Your task to perform on an android device: open a bookmark in the chrome app Image 0: 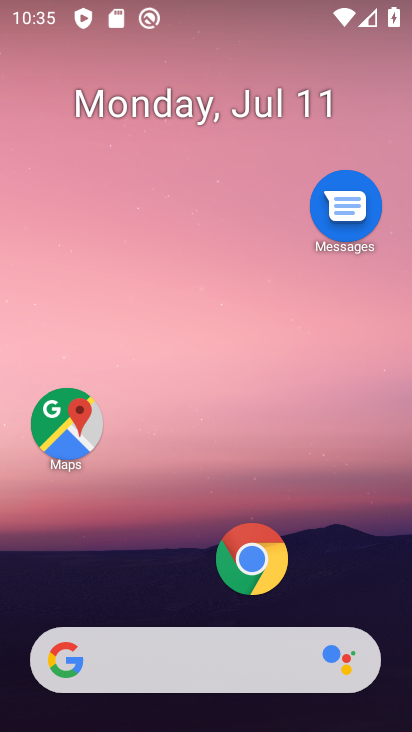
Step 0: drag from (368, 577) to (351, 131)
Your task to perform on an android device: open a bookmark in the chrome app Image 1: 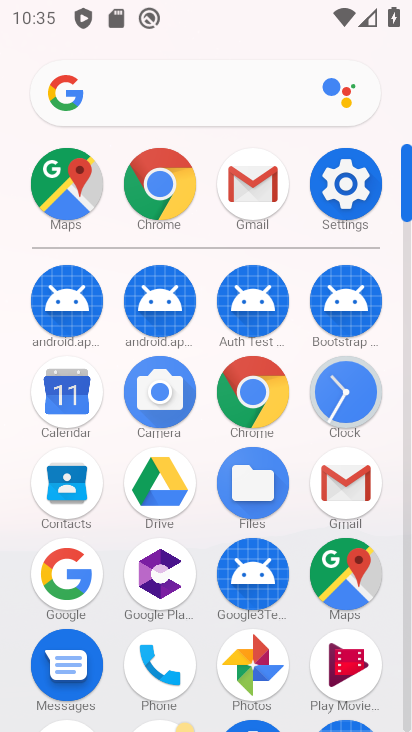
Step 1: click (269, 398)
Your task to perform on an android device: open a bookmark in the chrome app Image 2: 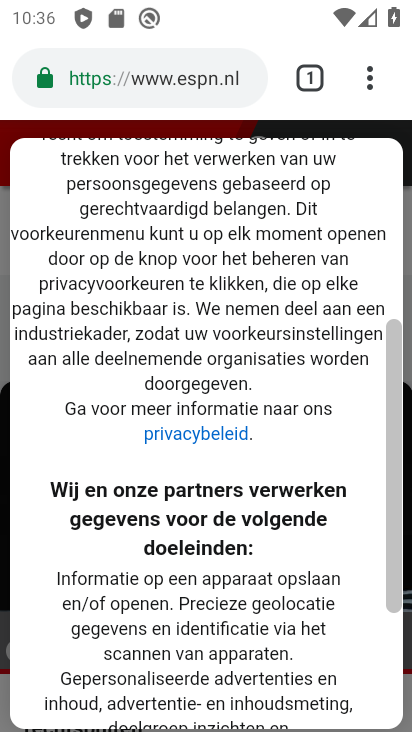
Step 2: click (371, 80)
Your task to perform on an android device: open a bookmark in the chrome app Image 3: 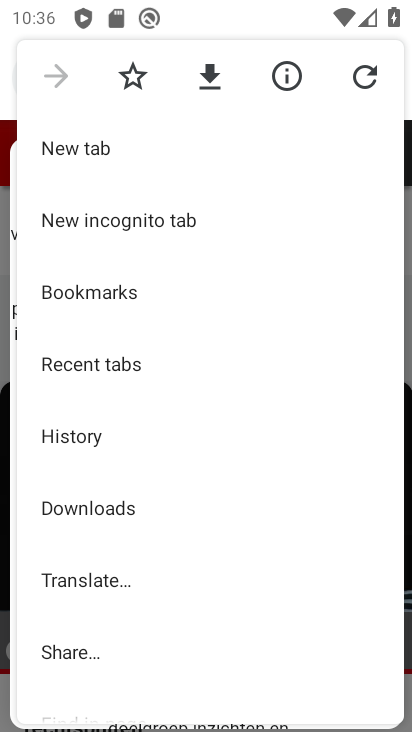
Step 3: click (132, 296)
Your task to perform on an android device: open a bookmark in the chrome app Image 4: 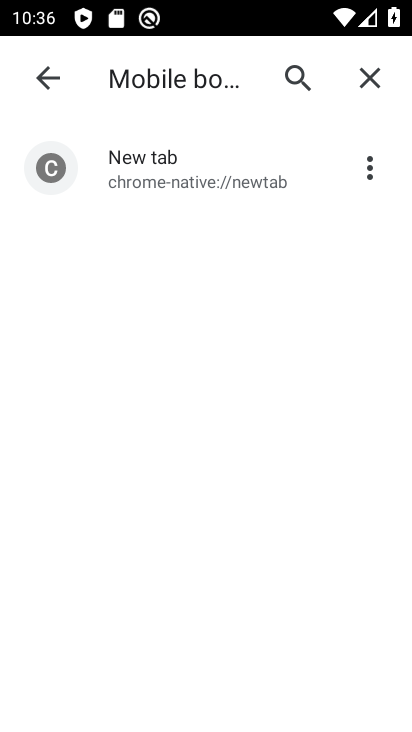
Step 4: click (173, 169)
Your task to perform on an android device: open a bookmark in the chrome app Image 5: 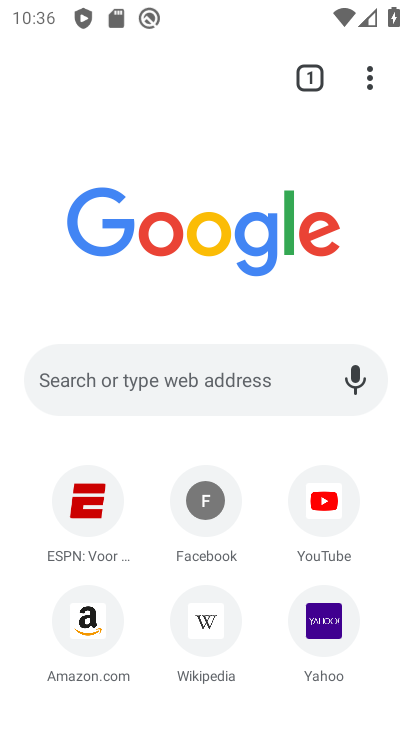
Step 5: task complete